Your task to perform on an android device: Open Wikipedia Image 0: 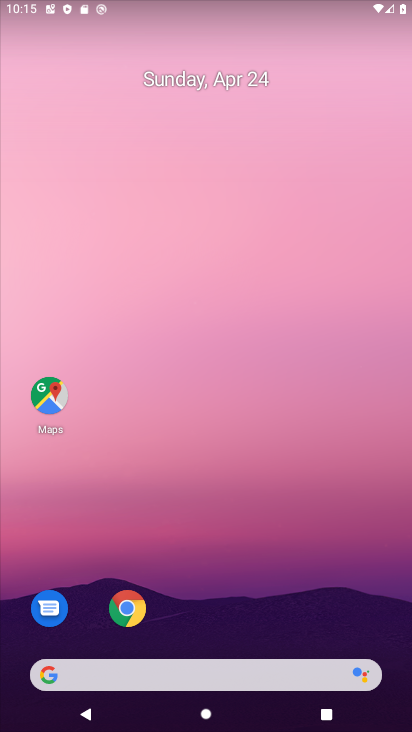
Step 0: drag from (237, 608) to (308, 178)
Your task to perform on an android device: Open Wikipedia Image 1: 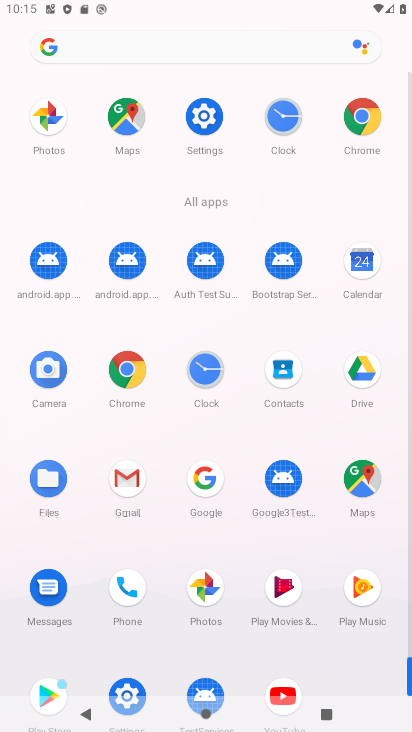
Step 1: click (125, 365)
Your task to perform on an android device: Open Wikipedia Image 2: 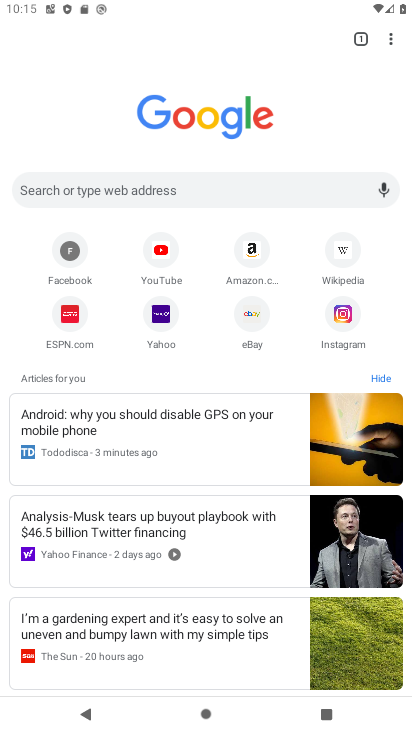
Step 2: click (281, 188)
Your task to perform on an android device: Open Wikipedia Image 3: 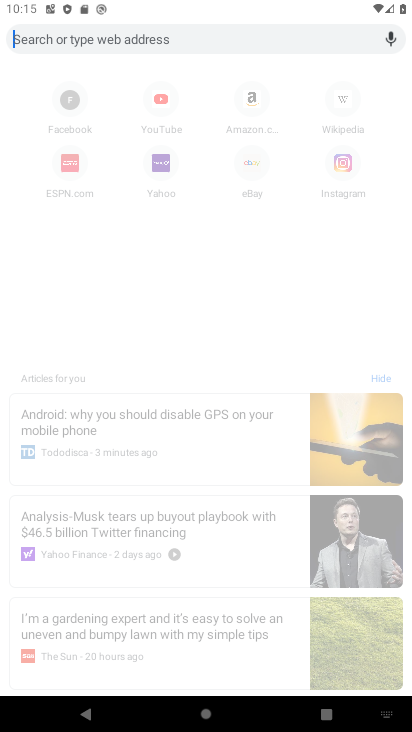
Step 3: press back button
Your task to perform on an android device: Open Wikipedia Image 4: 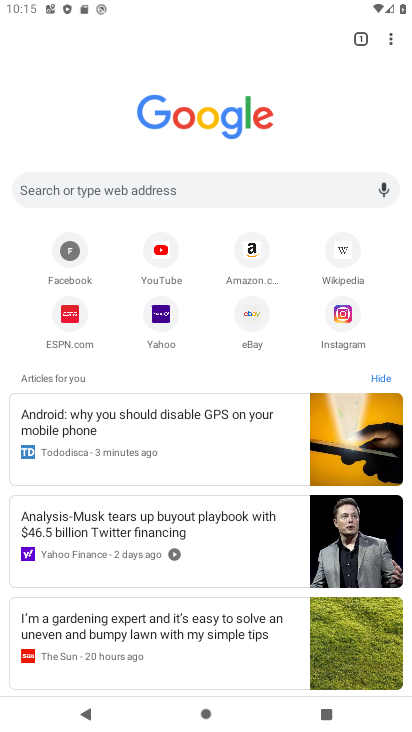
Step 4: click (338, 242)
Your task to perform on an android device: Open Wikipedia Image 5: 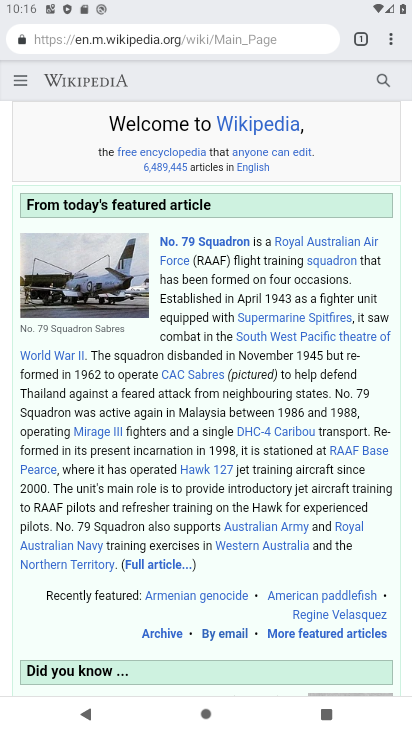
Step 5: task complete